Your task to perform on an android device: set default search engine in the chrome app Image 0: 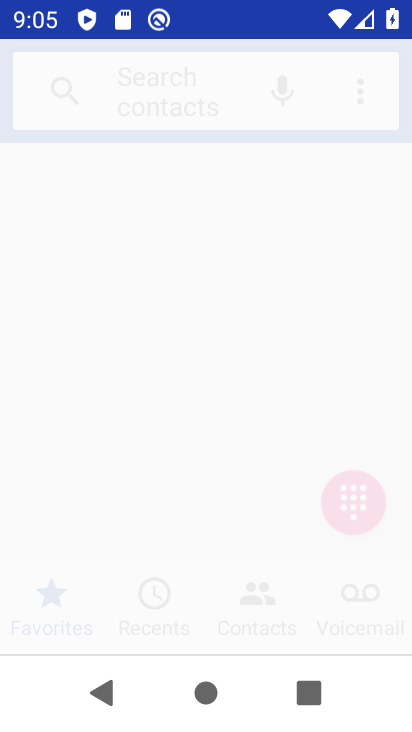
Step 0: drag from (360, 583) to (101, 53)
Your task to perform on an android device: set default search engine in the chrome app Image 1: 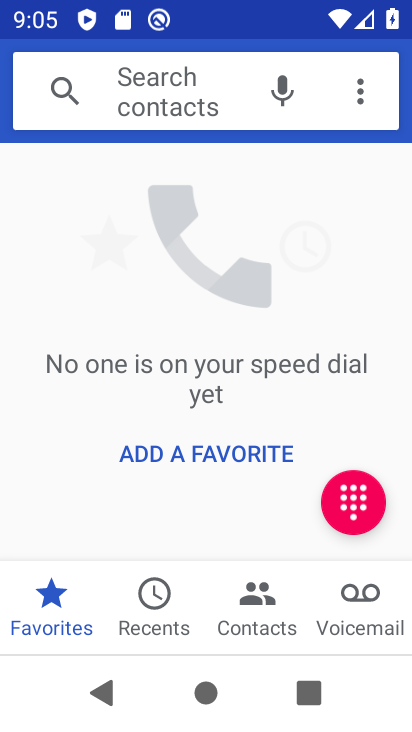
Step 1: press back button
Your task to perform on an android device: set default search engine in the chrome app Image 2: 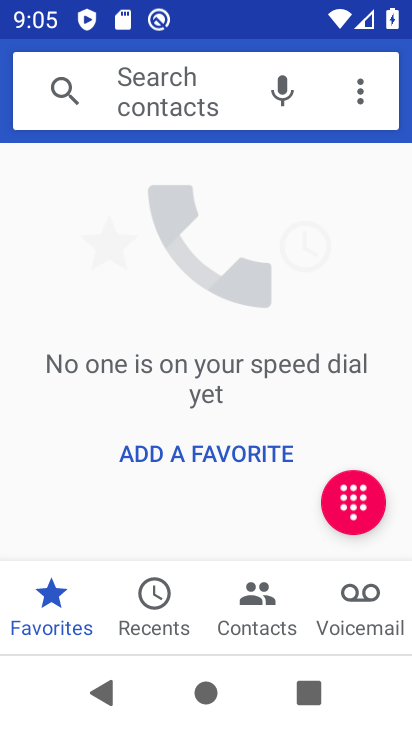
Step 2: press back button
Your task to perform on an android device: set default search engine in the chrome app Image 3: 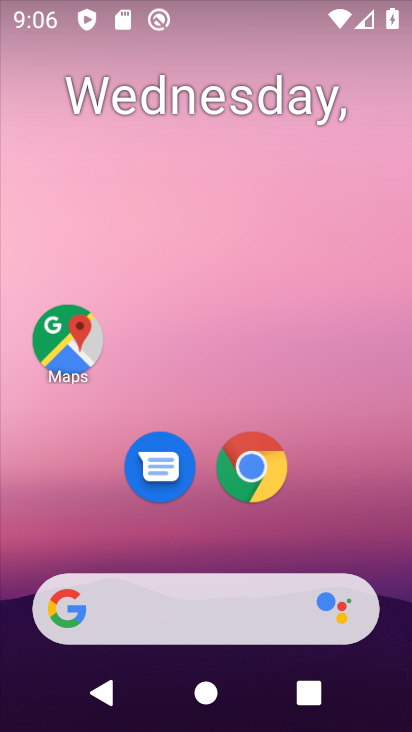
Step 3: drag from (251, 378) to (129, 120)
Your task to perform on an android device: set default search engine in the chrome app Image 4: 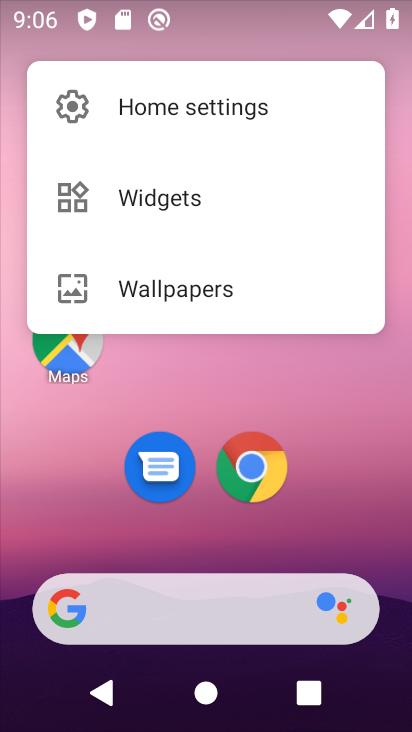
Step 4: drag from (297, 462) to (121, 109)
Your task to perform on an android device: set default search engine in the chrome app Image 5: 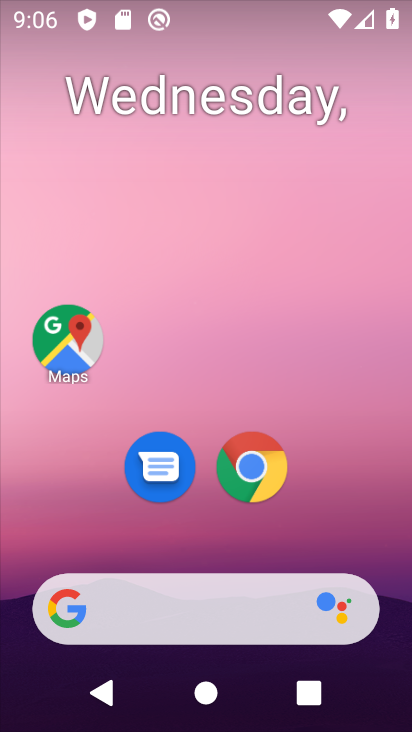
Step 5: drag from (271, 377) to (122, 86)
Your task to perform on an android device: set default search engine in the chrome app Image 6: 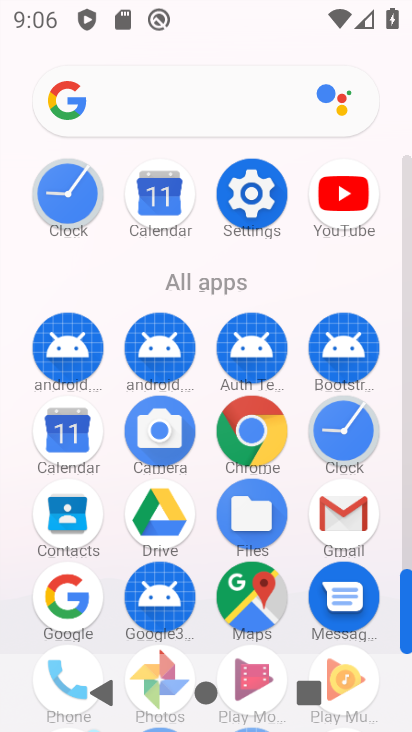
Step 6: drag from (316, 417) to (222, 131)
Your task to perform on an android device: set default search engine in the chrome app Image 7: 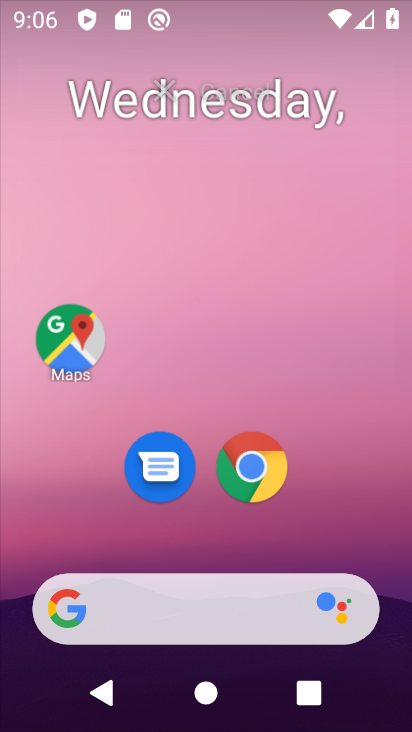
Step 7: click (283, 246)
Your task to perform on an android device: set default search engine in the chrome app Image 8: 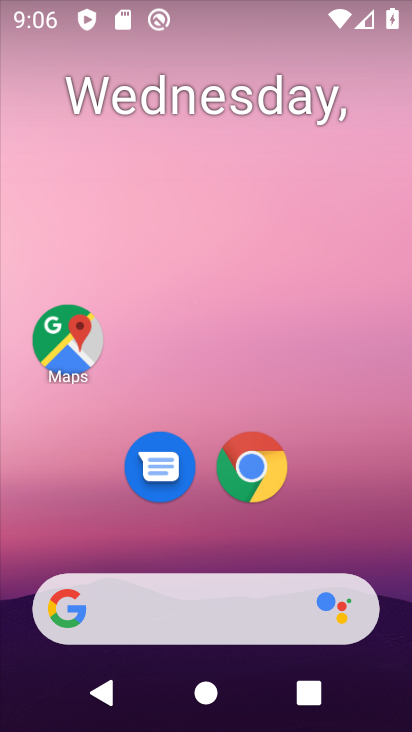
Step 8: drag from (350, 500) to (159, 145)
Your task to perform on an android device: set default search engine in the chrome app Image 9: 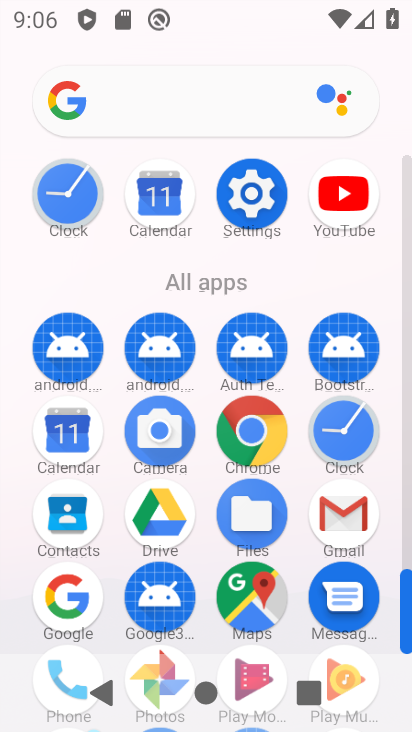
Step 9: click (293, 518)
Your task to perform on an android device: set default search engine in the chrome app Image 10: 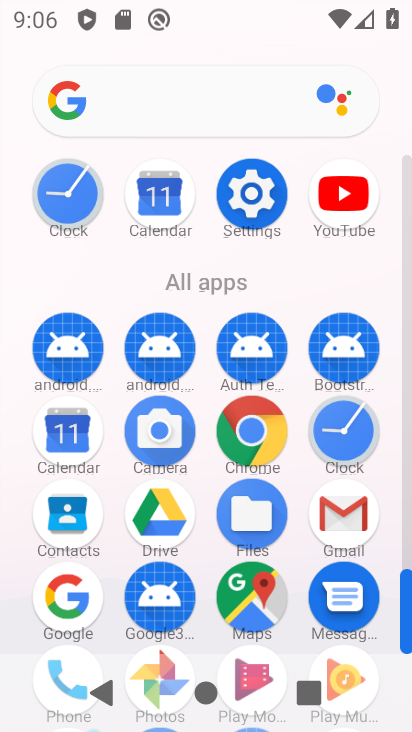
Step 10: drag from (204, 358) to (115, 159)
Your task to perform on an android device: set default search engine in the chrome app Image 11: 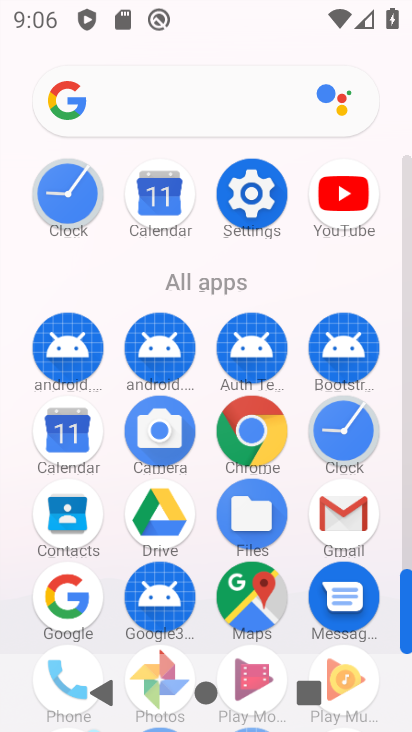
Step 11: drag from (252, 428) to (249, 462)
Your task to perform on an android device: set default search engine in the chrome app Image 12: 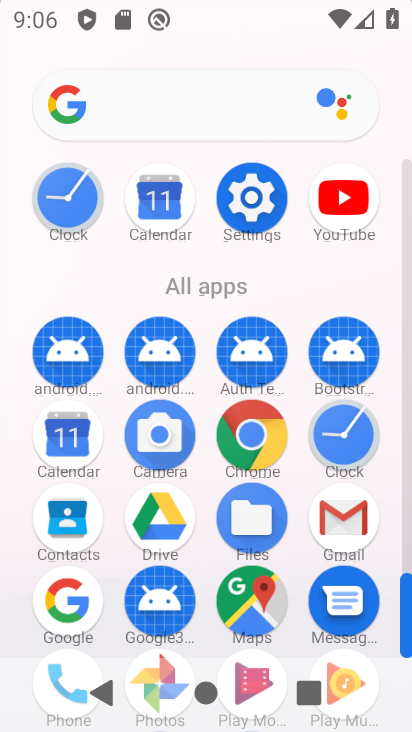
Step 12: click (255, 427)
Your task to perform on an android device: set default search engine in the chrome app Image 13: 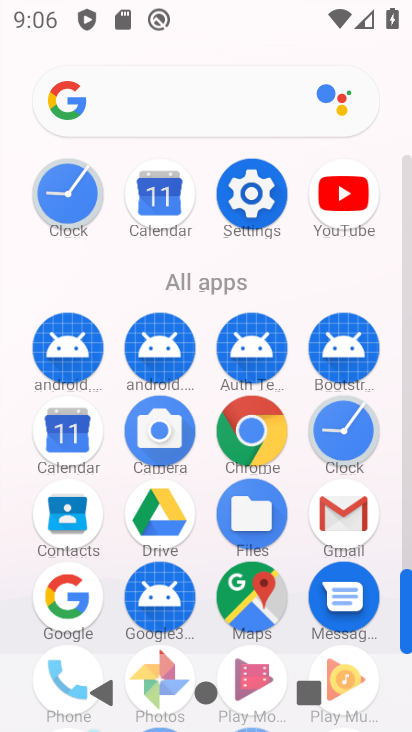
Step 13: click (248, 422)
Your task to perform on an android device: set default search engine in the chrome app Image 14: 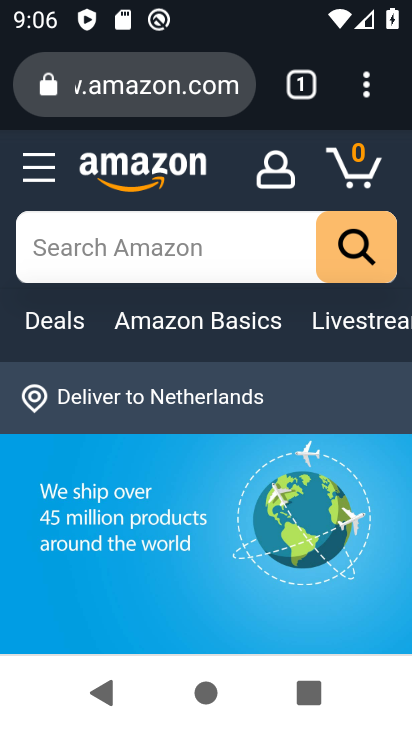
Step 14: click (254, 426)
Your task to perform on an android device: set default search engine in the chrome app Image 15: 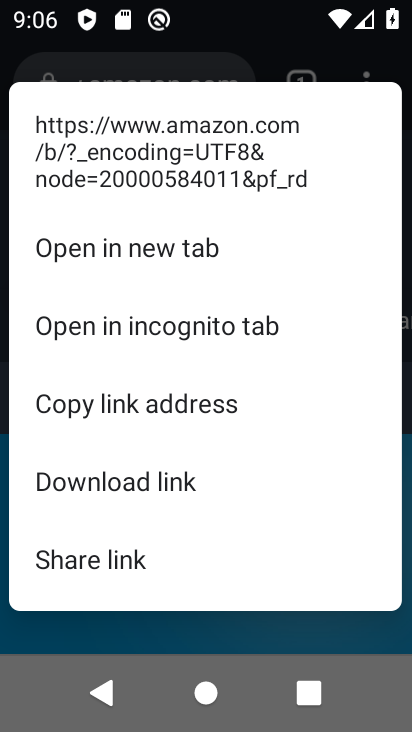
Step 15: click (145, 247)
Your task to perform on an android device: set default search engine in the chrome app Image 16: 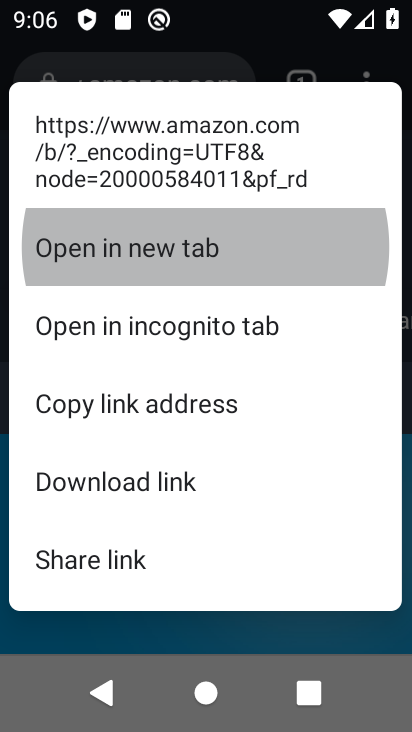
Step 16: click (146, 247)
Your task to perform on an android device: set default search engine in the chrome app Image 17: 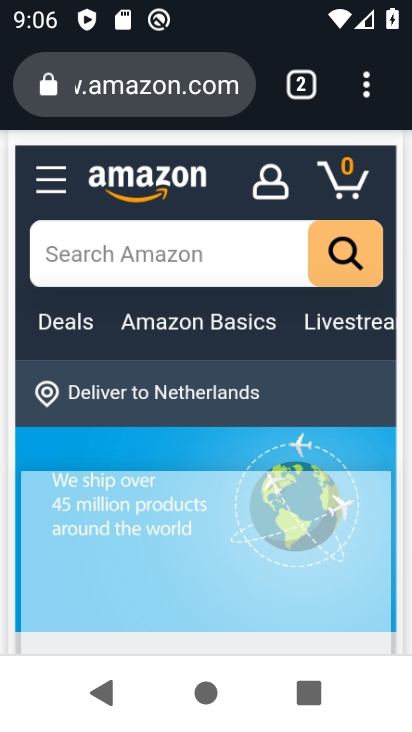
Step 17: click (146, 247)
Your task to perform on an android device: set default search engine in the chrome app Image 18: 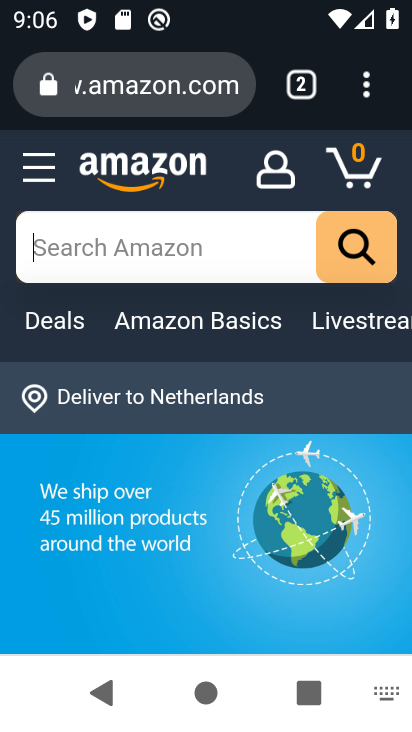
Step 18: drag from (365, 75) to (73, 507)
Your task to perform on an android device: set default search engine in the chrome app Image 19: 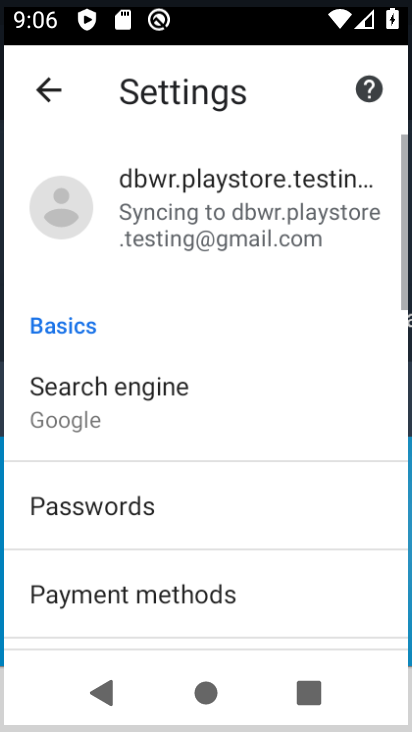
Step 19: click (72, 508)
Your task to perform on an android device: set default search engine in the chrome app Image 20: 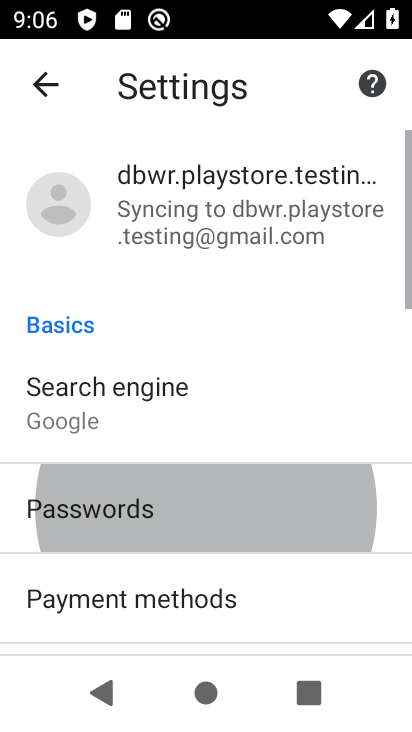
Step 20: click (87, 493)
Your task to perform on an android device: set default search engine in the chrome app Image 21: 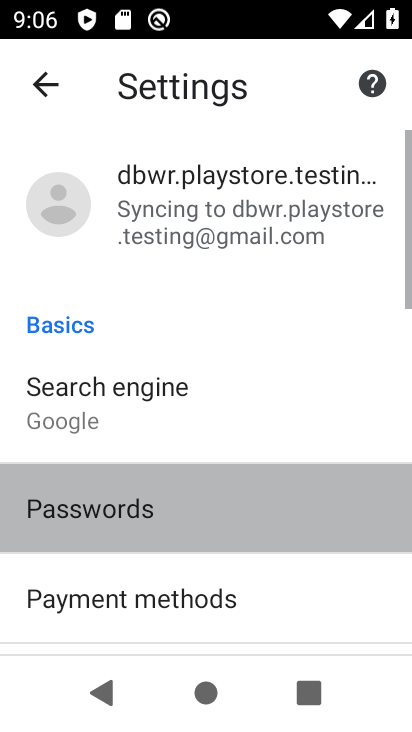
Step 21: click (108, 528)
Your task to perform on an android device: set default search engine in the chrome app Image 22: 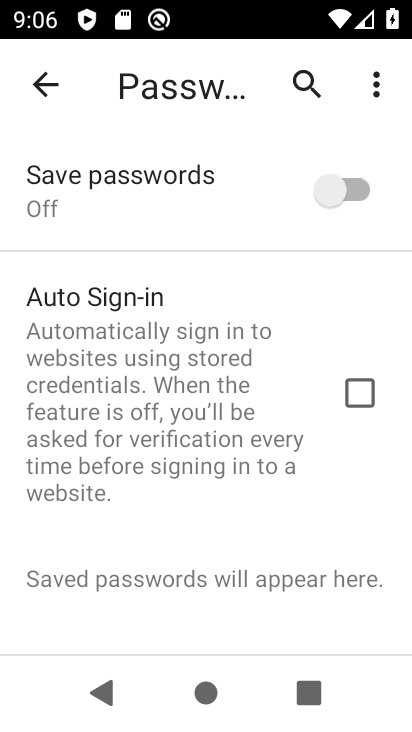
Step 22: click (44, 89)
Your task to perform on an android device: set default search engine in the chrome app Image 23: 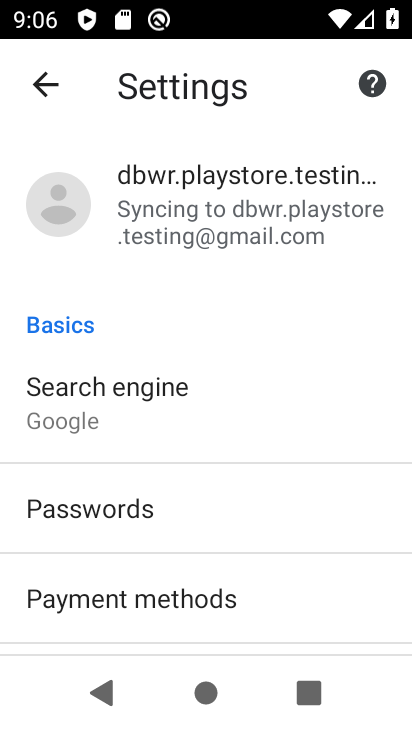
Step 23: click (46, 82)
Your task to perform on an android device: set default search engine in the chrome app Image 24: 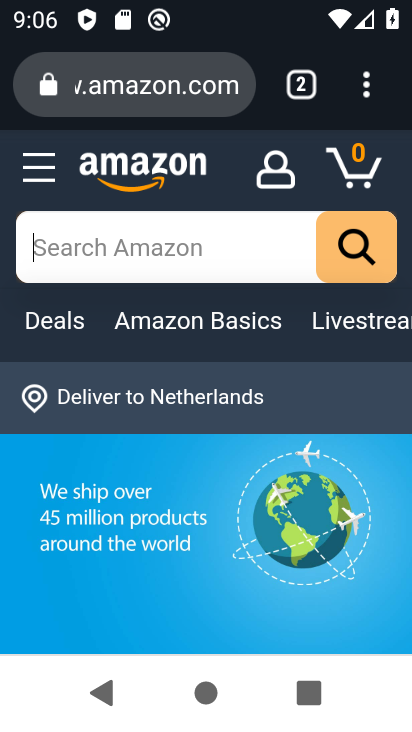
Step 24: click (97, 378)
Your task to perform on an android device: set default search engine in the chrome app Image 25: 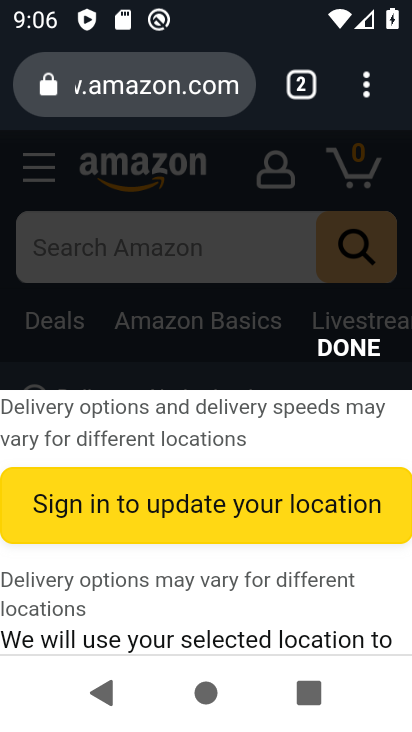
Step 25: task complete